Your task to perform on an android device: Open notification settings Image 0: 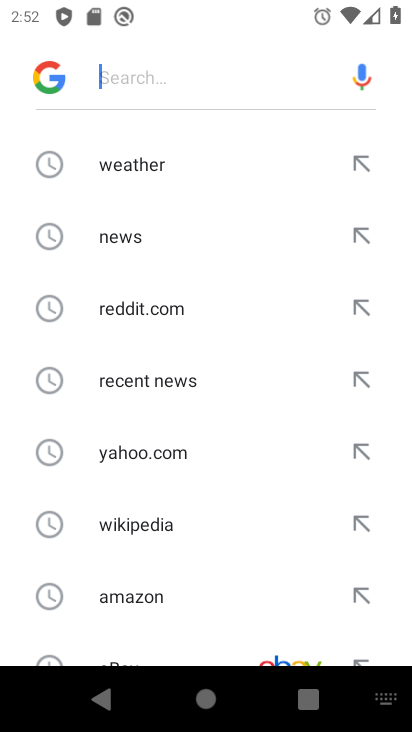
Step 0: press home button
Your task to perform on an android device: Open notification settings Image 1: 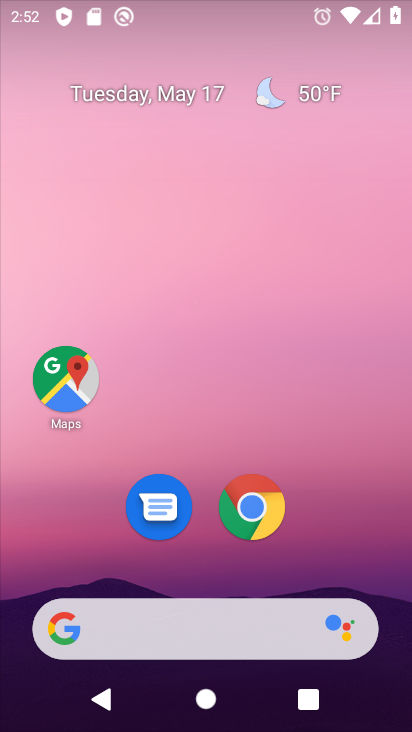
Step 1: drag from (330, 529) to (192, 3)
Your task to perform on an android device: Open notification settings Image 2: 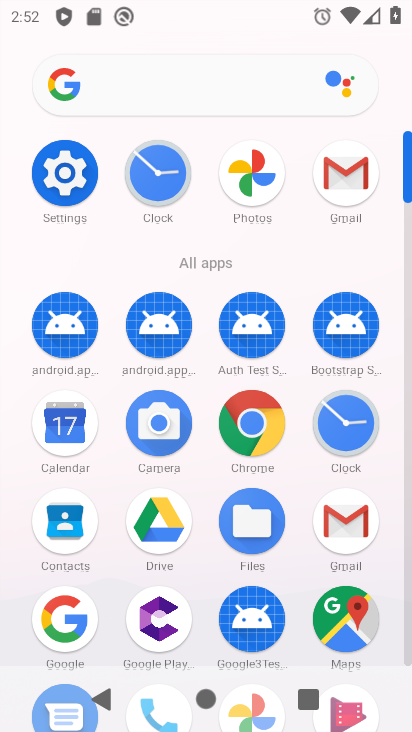
Step 2: click (52, 170)
Your task to perform on an android device: Open notification settings Image 3: 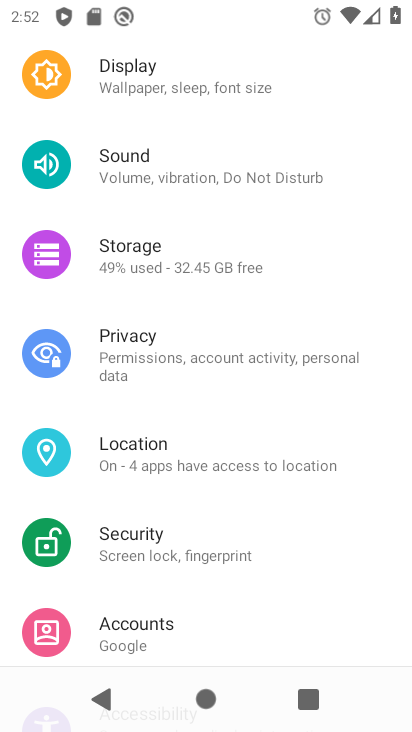
Step 3: drag from (242, 210) to (225, 651)
Your task to perform on an android device: Open notification settings Image 4: 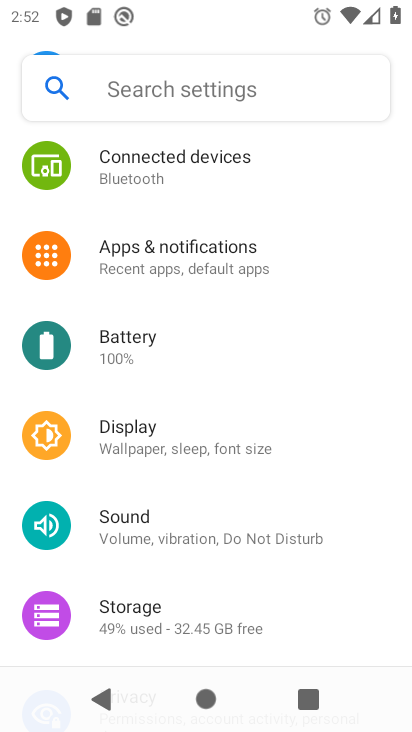
Step 4: drag from (228, 127) to (205, 544)
Your task to perform on an android device: Open notification settings Image 5: 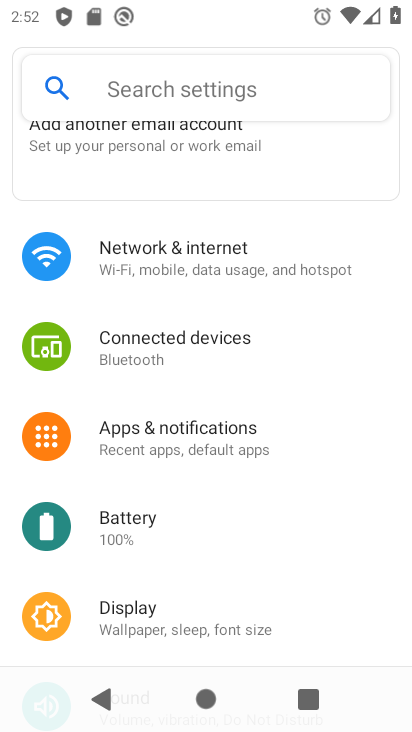
Step 5: click (203, 440)
Your task to perform on an android device: Open notification settings Image 6: 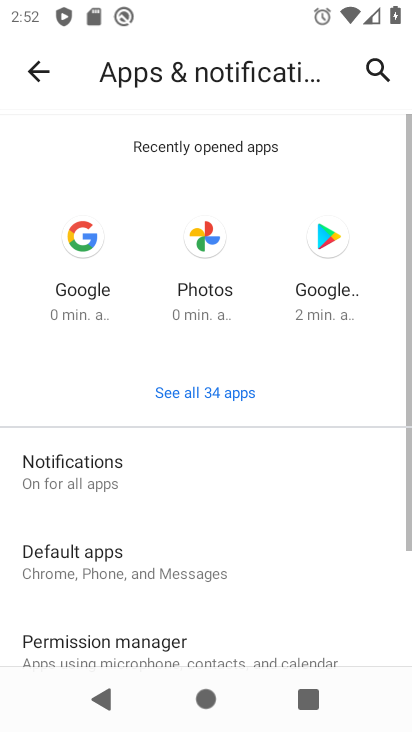
Step 6: task complete